Your task to perform on an android device: remove spam from my inbox in the gmail app Image 0: 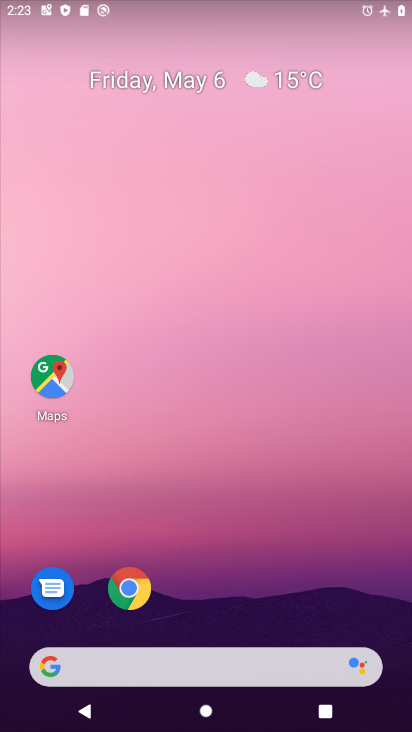
Step 0: drag from (201, 626) to (212, 51)
Your task to perform on an android device: remove spam from my inbox in the gmail app Image 1: 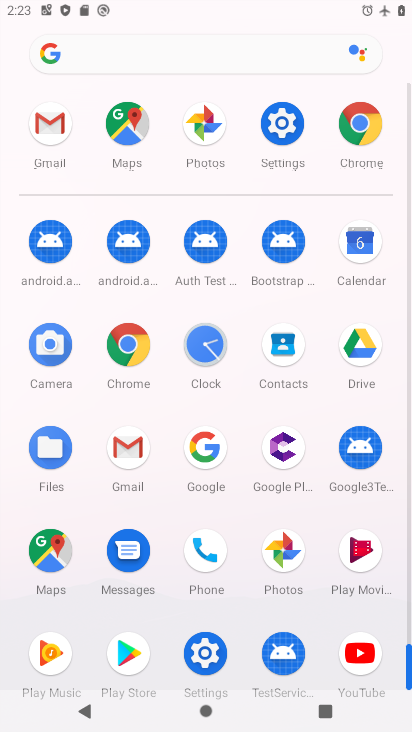
Step 1: drag from (234, 605) to (283, 191)
Your task to perform on an android device: remove spam from my inbox in the gmail app Image 2: 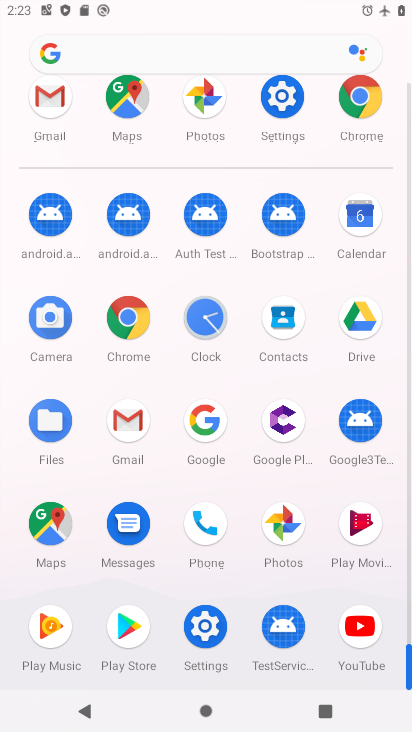
Step 2: click (120, 432)
Your task to perform on an android device: remove spam from my inbox in the gmail app Image 3: 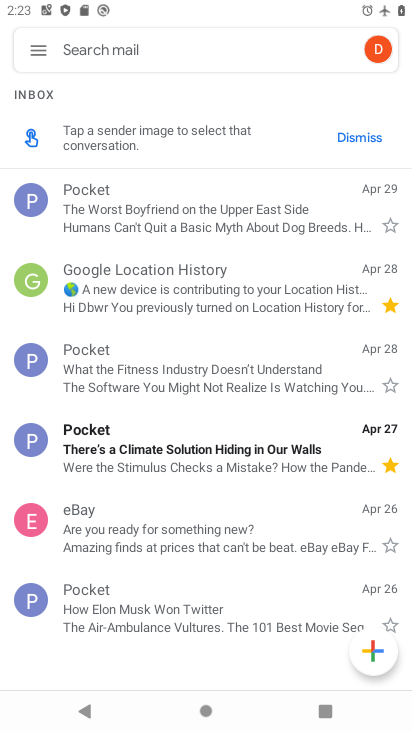
Step 3: click (32, 44)
Your task to perform on an android device: remove spam from my inbox in the gmail app Image 4: 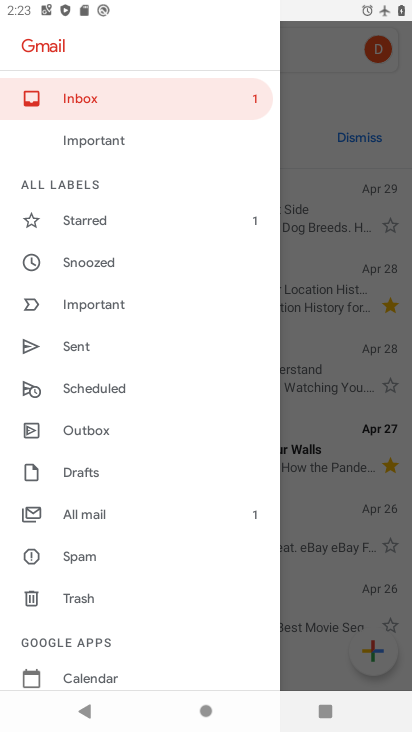
Step 4: drag from (98, 608) to (163, 204)
Your task to perform on an android device: remove spam from my inbox in the gmail app Image 5: 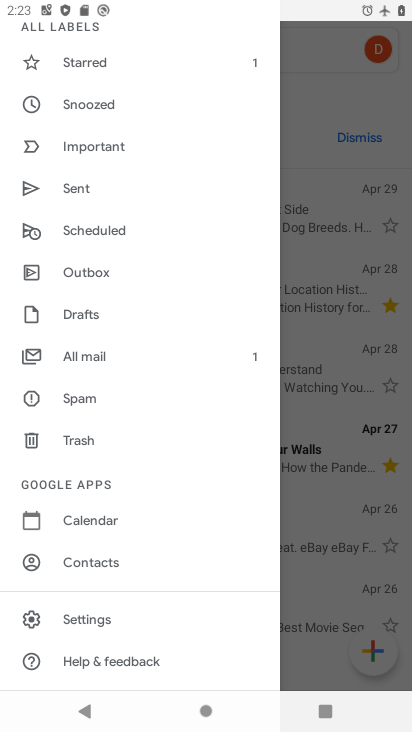
Step 5: drag from (177, 625) to (177, 352)
Your task to perform on an android device: remove spam from my inbox in the gmail app Image 6: 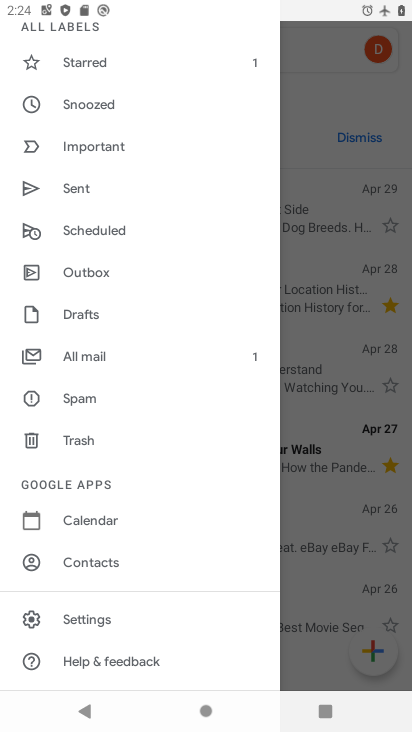
Step 6: drag from (124, 567) to (191, 182)
Your task to perform on an android device: remove spam from my inbox in the gmail app Image 7: 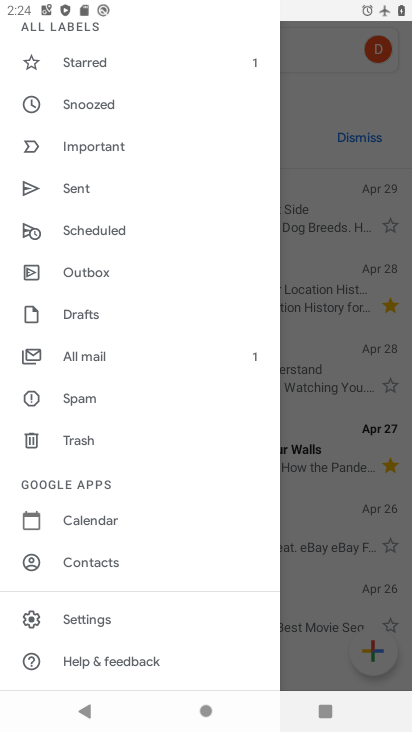
Step 7: click (84, 398)
Your task to perform on an android device: remove spam from my inbox in the gmail app Image 8: 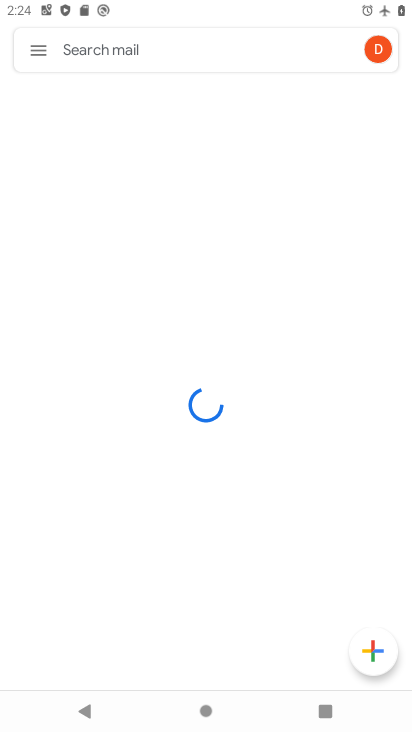
Step 8: drag from (191, 561) to (191, 281)
Your task to perform on an android device: remove spam from my inbox in the gmail app Image 9: 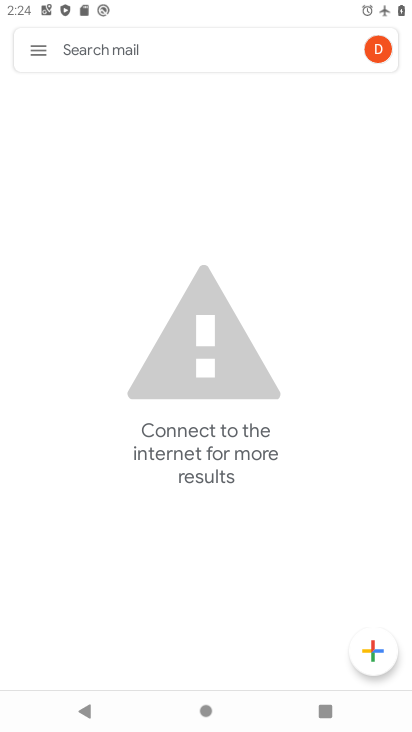
Step 9: drag from (168, 561) to (244, 277)
Your task to perform on an android device: remove spam from my inbox in the gmail app Image 10: 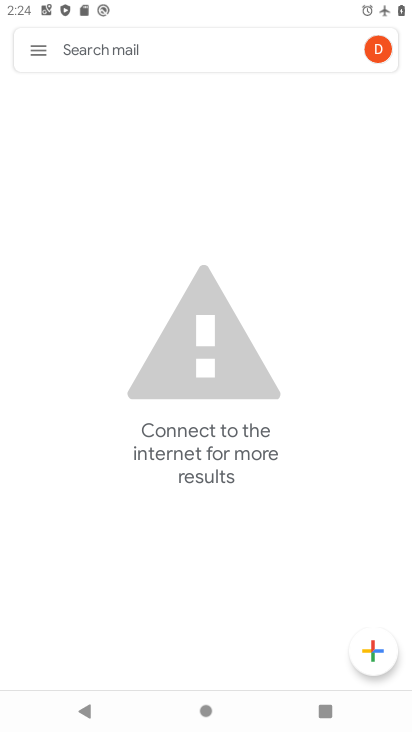
Step 10: drag from (262, 602) to (229, 220)
Your task to perform on an android device: remove spam from my inbox in the gmail app Image 11: 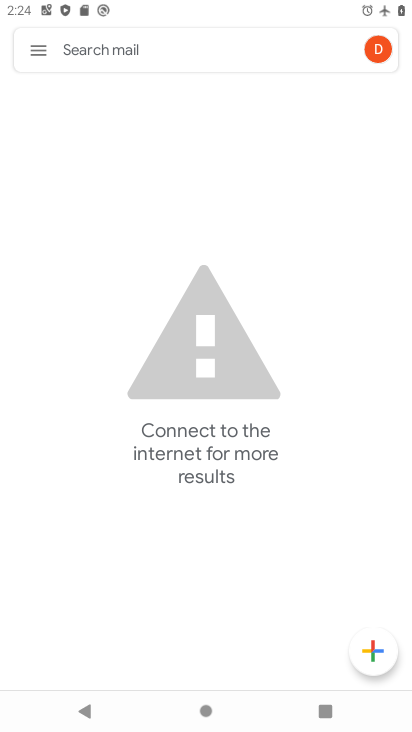
Step 11: click (41, 63)
Your task to perform on an android device: remove spam from my inbox in the gmail app Image 12: 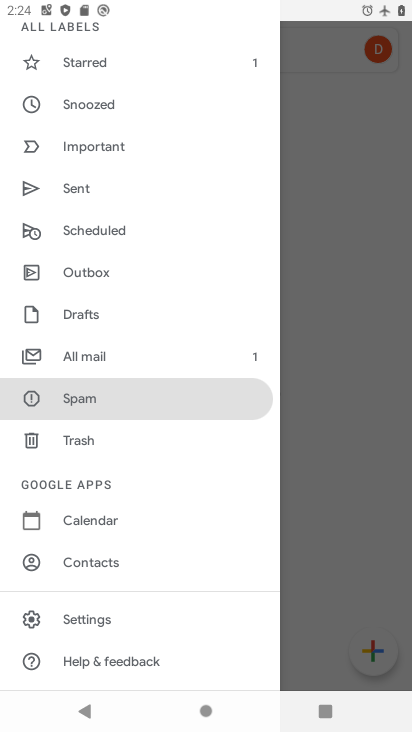
Step 12: click (73, 375)
Your task to perform on an android device: remove spam from my inbox in the gmail app Image 13: 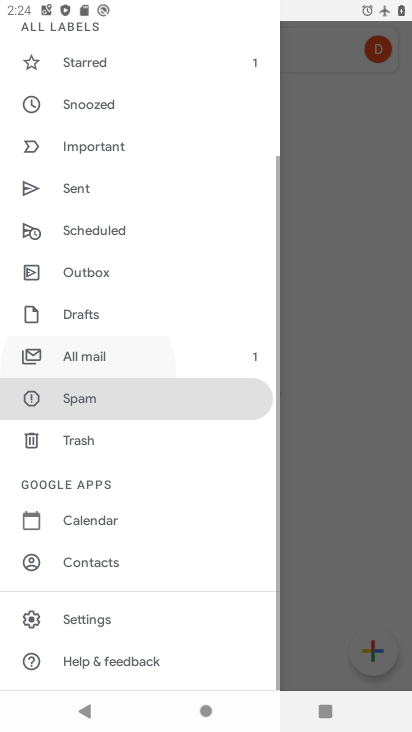
Step 13: click (73, 394)
Your task to perform on an android device: remove spam from my inbox in the gmail app Image 14: 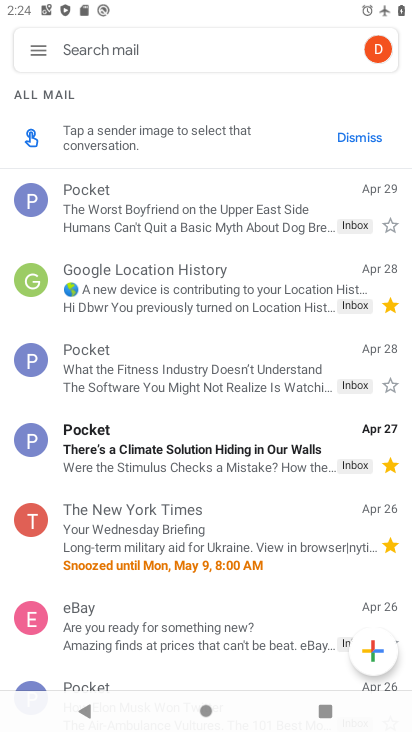
Step 14: click (51, 80)
Your task to perform on an android device: remove spam from my inbox in the gmail app Image 15: 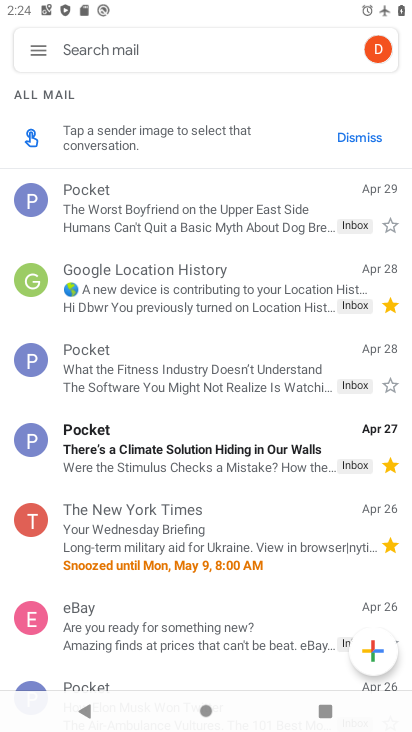
Step 15: click (40, 63)
Your task to perform on an android device: remove spam from my inbox in the gmail app Image 16: 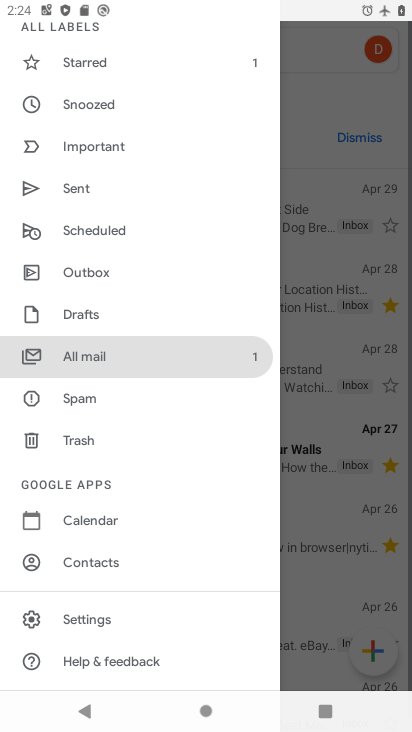
Step 16: click (77, 394)
Your task to perform on an android device: remove spam from my inbox in the gmail app Image 17: 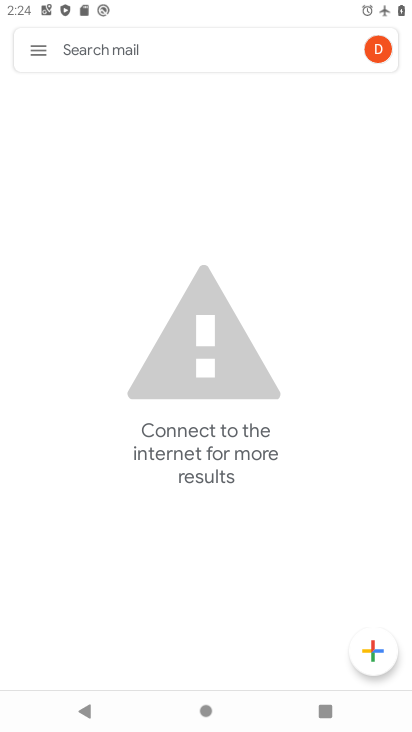
Step 17: task complete